Your task to perform on an android device: Open the calendar app, open the side menu, and click the "Day" option Image 0: 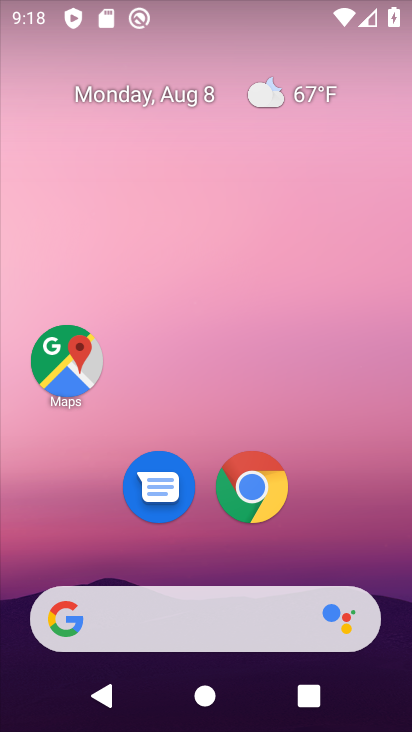
Step 0: drag from (193, 576) to (202, 35)
Your task to perform on an android device: Open the calendar app, open the side menu, and click the "Day" option Image 1: 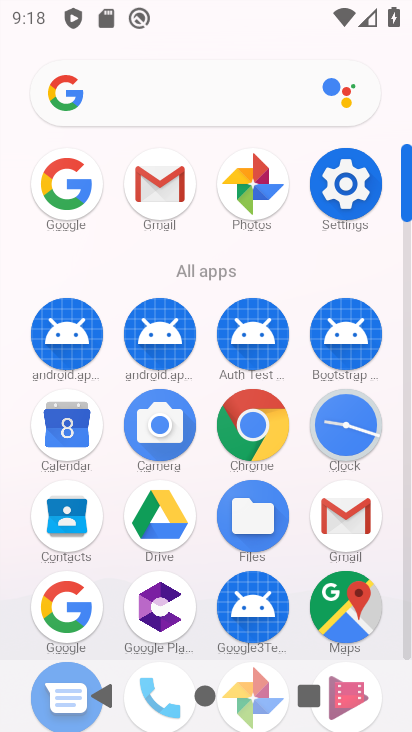
Step 1: click (68, 429)
Your task to perform on an android device: Open the calendar app, open the side menu, and click the "Day" option Image 2: 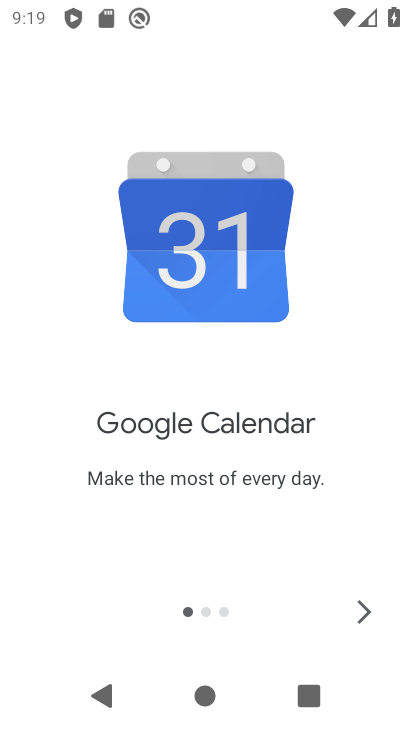
Step 2: click (359, 610)
Your task to perform on an android device: Open the calendar app, open the side menu, and click the "Day" option Image 3: 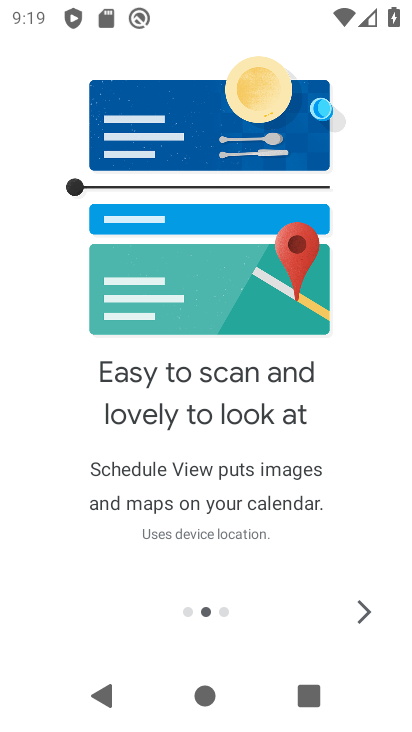
Step 3: click (359, 611)
Your task to perform on an android device: Open the calendar app, open the side menu, and click the "Day" option Image 4: 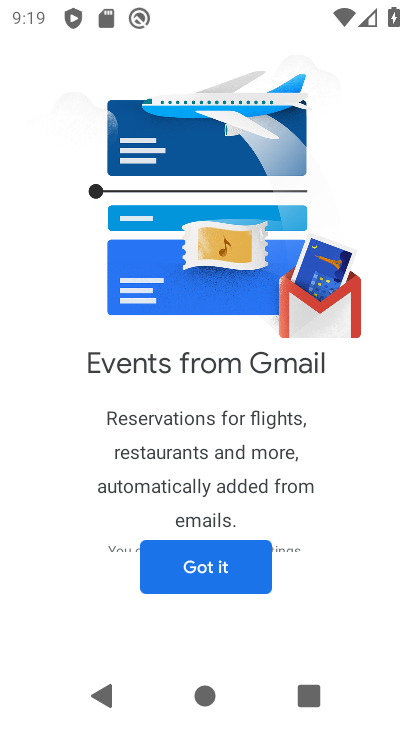
Step 4: click (216, 563)
Your task to perform on an android device: Open the calendar app, open the side menu, and click the "Day" option Image 5: 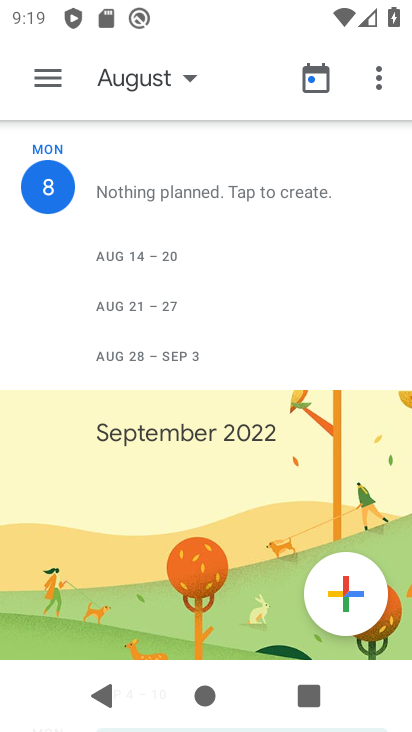
Step 5: click (52, 78)
Your task to perform on an android device: Open the calendar app, open the side menu, and click the "Day" option Image 6: 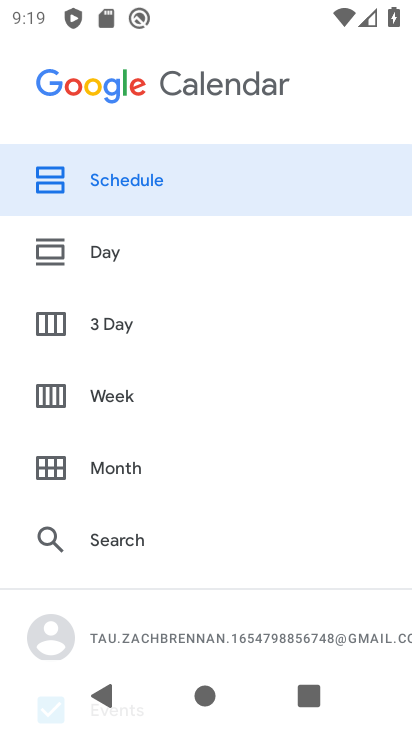
Step 6: click (102, 249)
Your task to perform on an android device: Open the calendar app, open the side menu, and click the "Day" option Image 7: 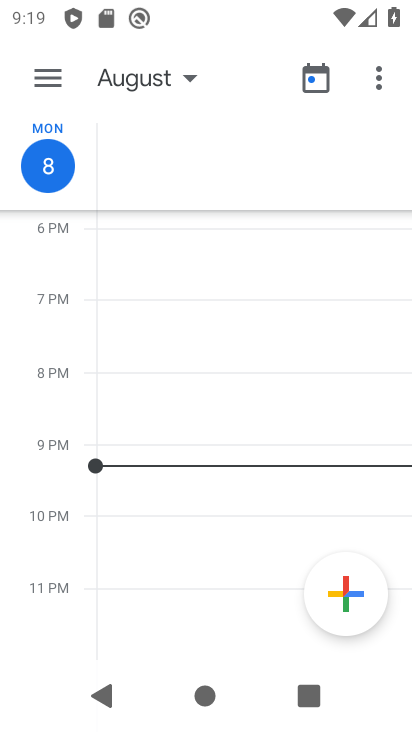
Step 7: task complete